Your task to perform on an android device: turn on bluetooth scan Image 0: 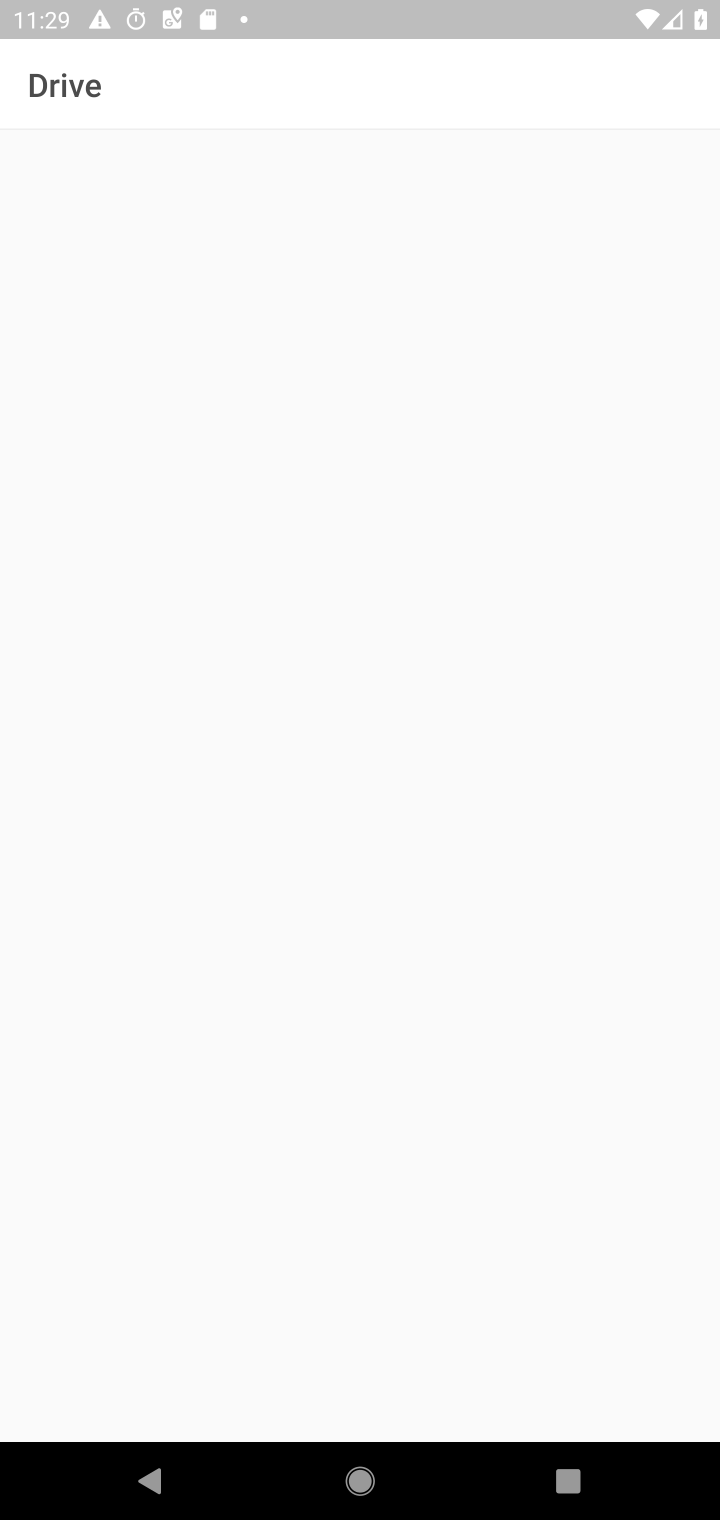
Step 0: press home button
Your task to perform on an android device: turn on bluetooth scan Image 1: 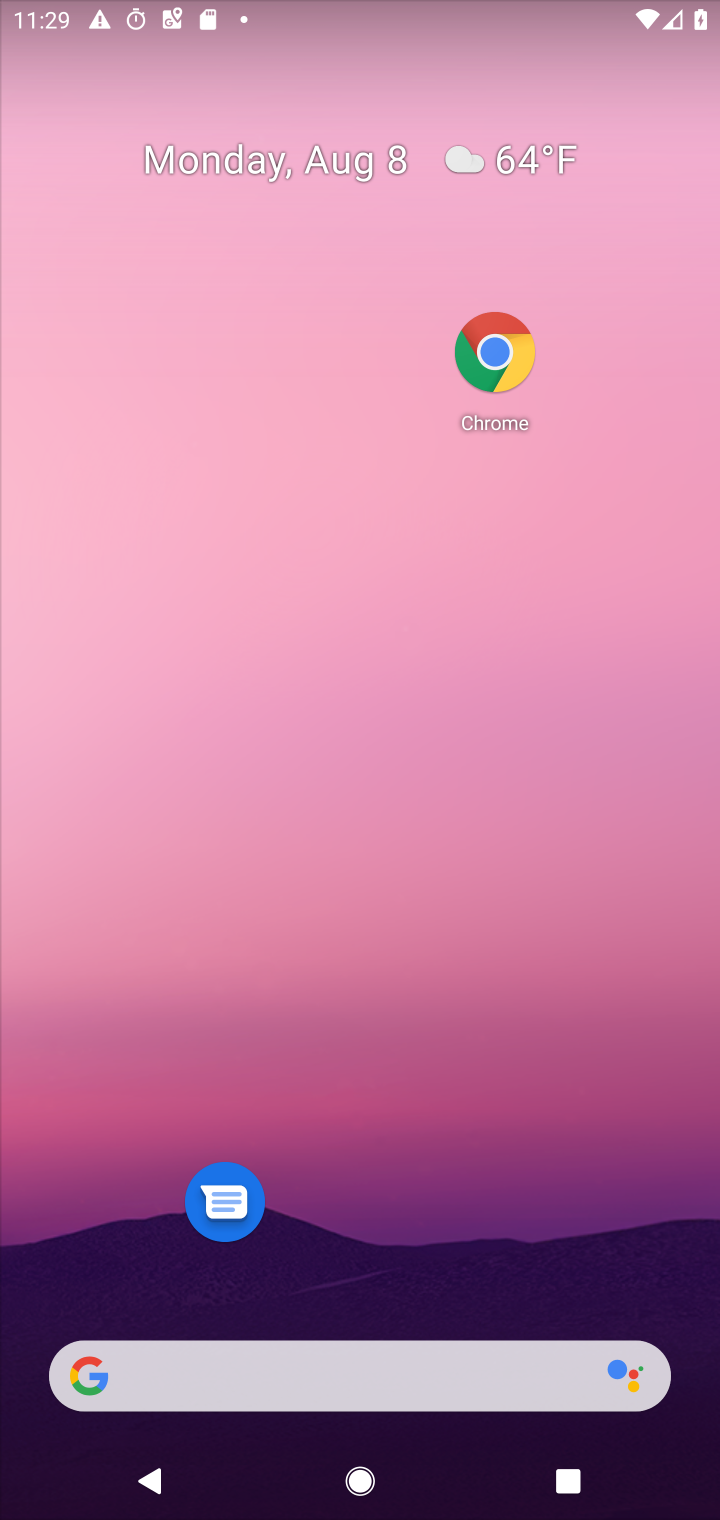
Step 1: drag from (423, 753) to (413, 392)
Your task to perform on an android device: turn on bluetooth scan Image 2: 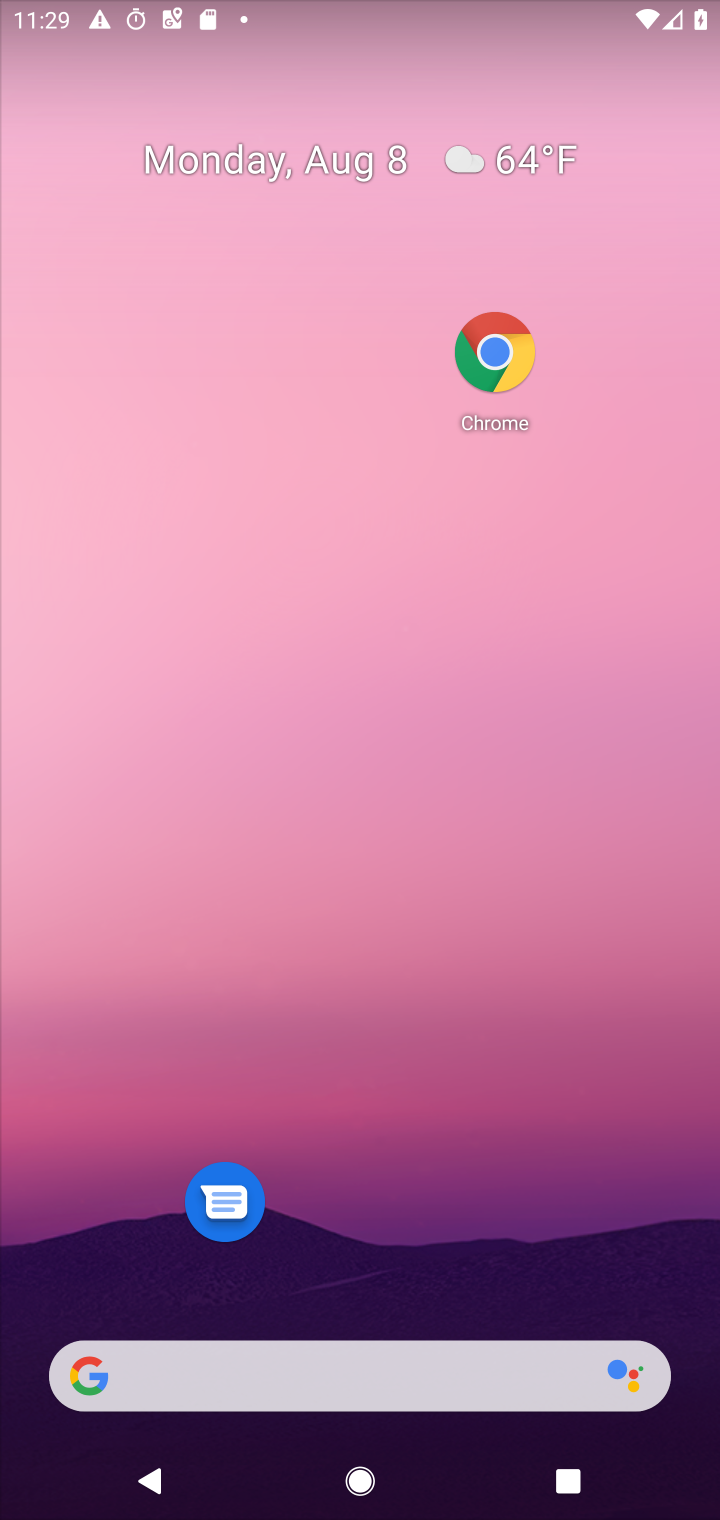
Step 2: drag from (442, 761) to (469, 295)
Your task to perform on an android device: turn on bluetooth scan Image 3: 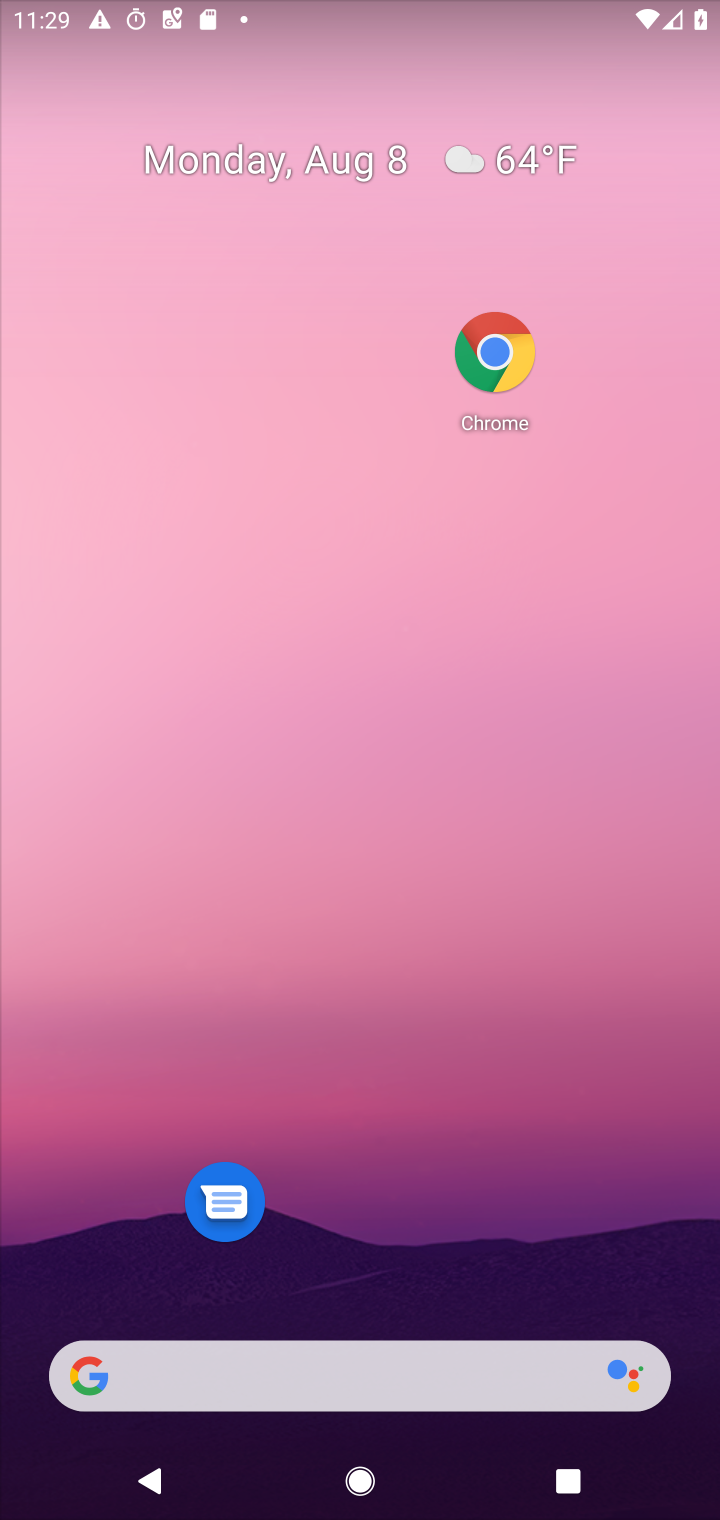
Step 3: drag from (457, 1318) to (377, 98)
Your task to perform on an android device: turn on bluetooth scan Image 4: 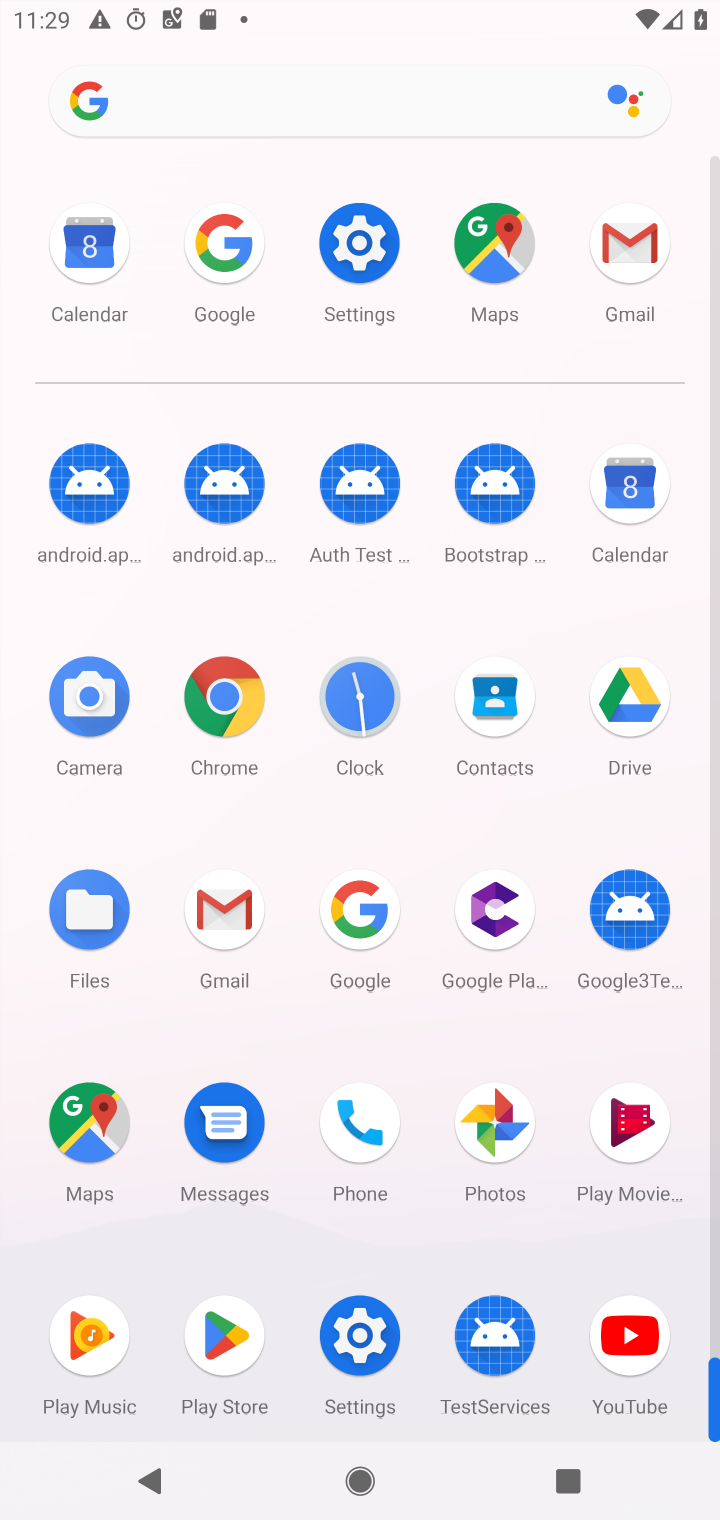
Step 4: click (358, 253)
Your task to perform on an android device: turn on bluetooth scan Image 5: 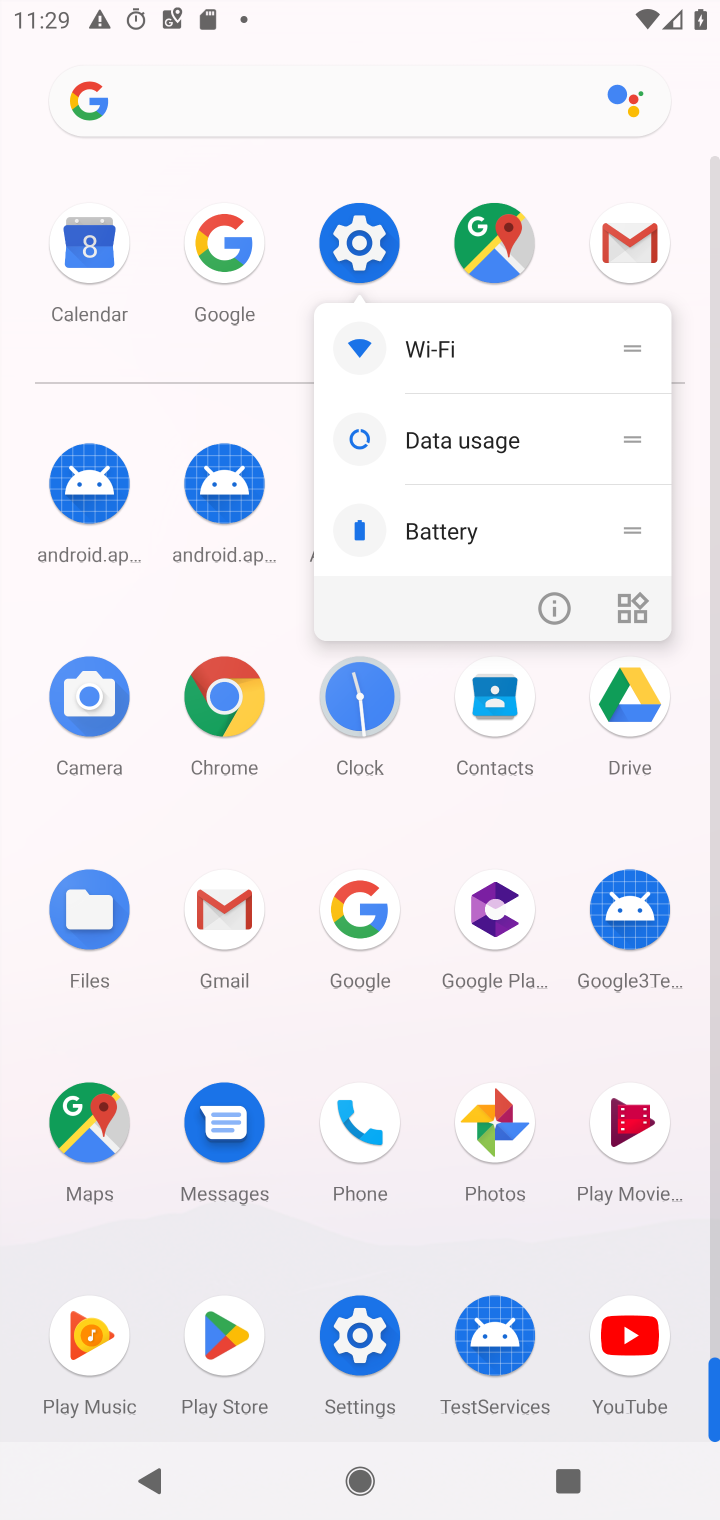
Step 5: click (349, 253)
Your task to perform on an android device: turn on bluetooth scan Image 6: 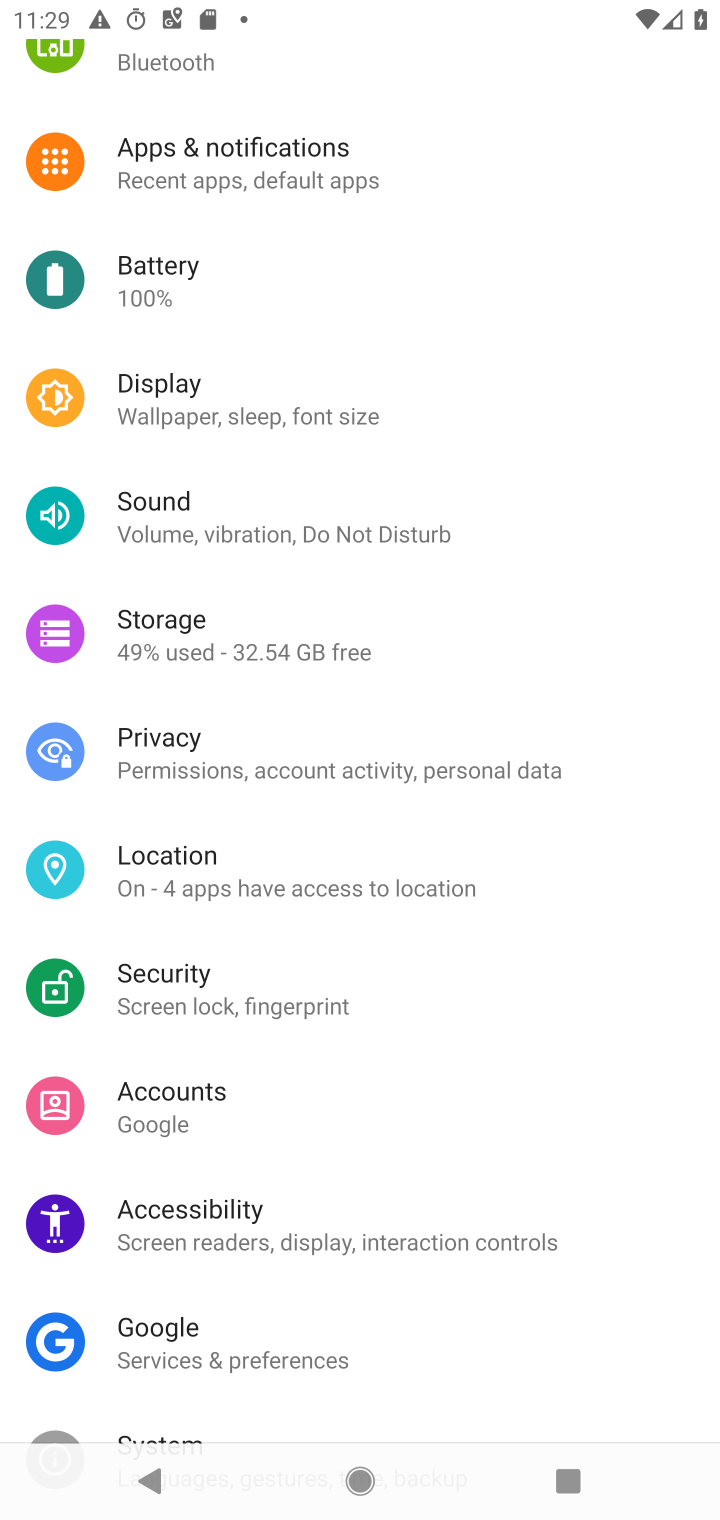
Step 6: drag from (256, 801) to (218, 1305)
Your task to perform on an android device: turn on bluetooth scan Image 7: 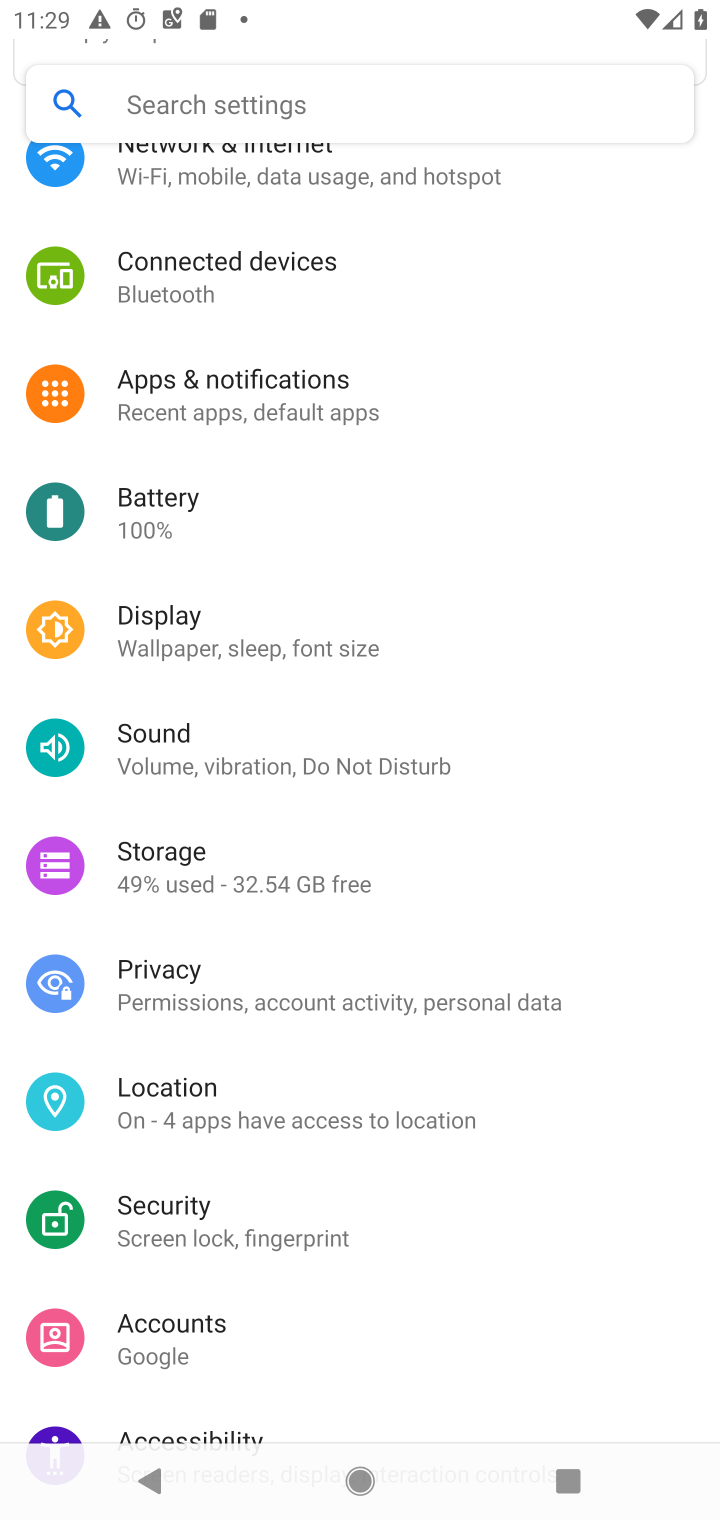
Step 7: drag from (330, 602) to (310, 1318)
Your task to perform on an android device: turn on bluetooth scan Image 8: 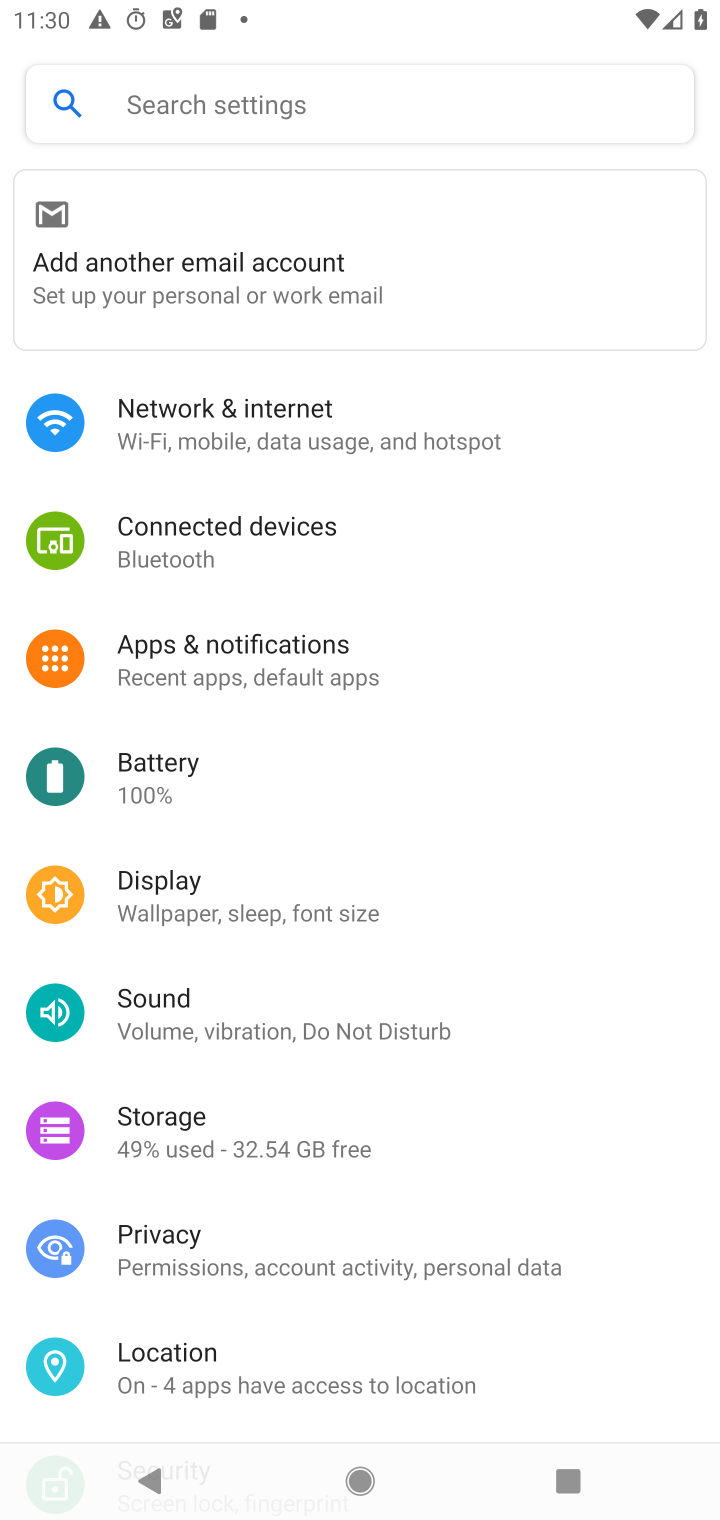
Step 8: click (299, 542)
Your task to perform on an android device: turn on bluetooth scan Image 9: 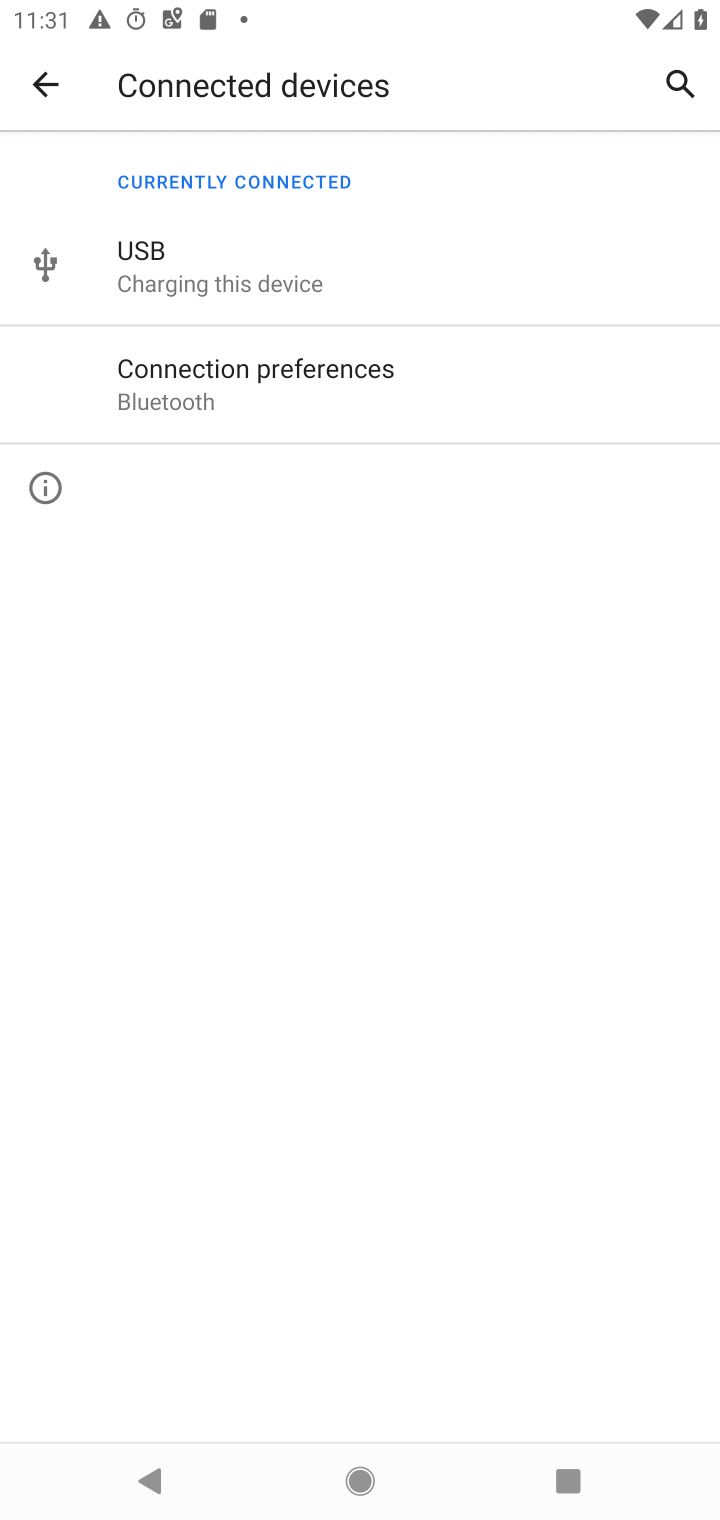
Step 9: click (261, 370)
Your task to perform on an android device: turn on bluetooth scan Image 10: 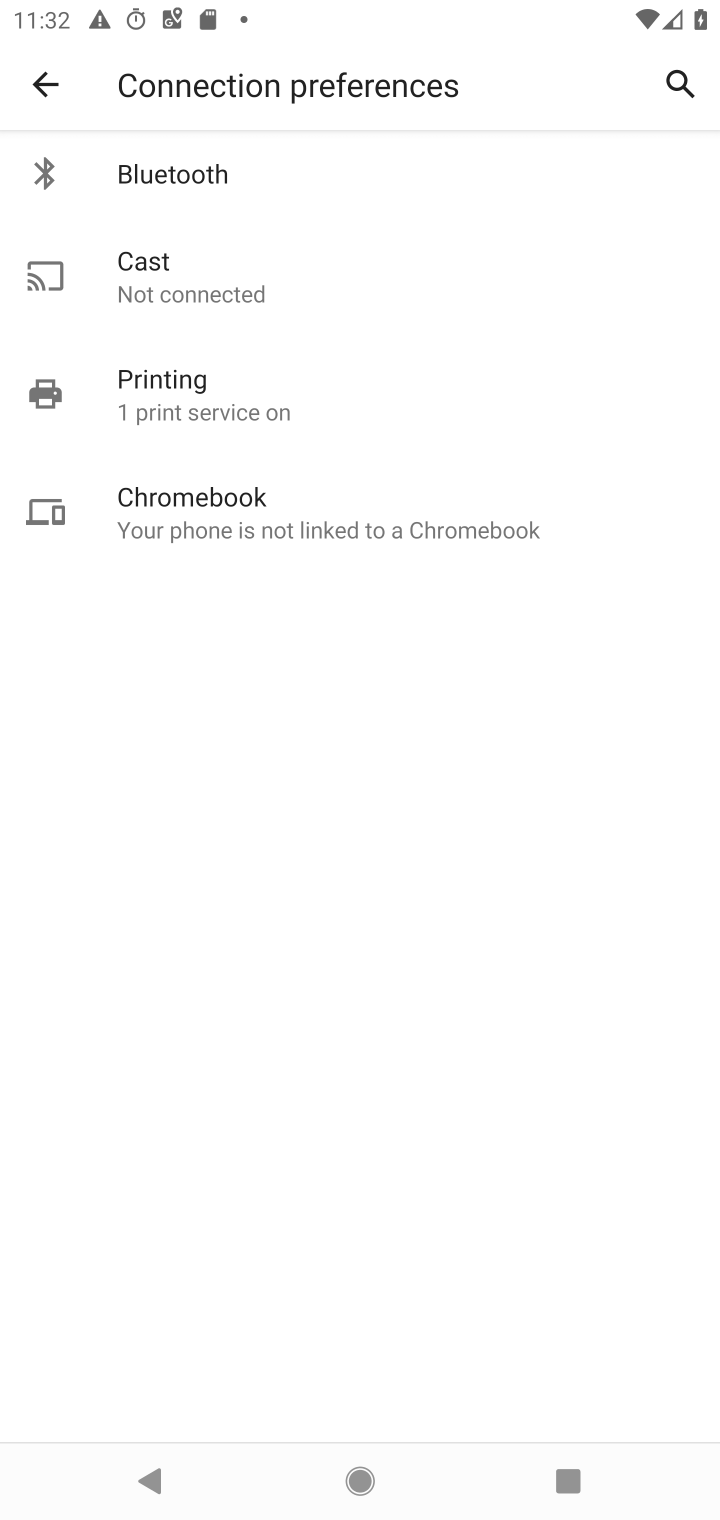
Step 10: click (196, 196)
Your task to perform on an android device: turn on bluetooth scan Image 11: 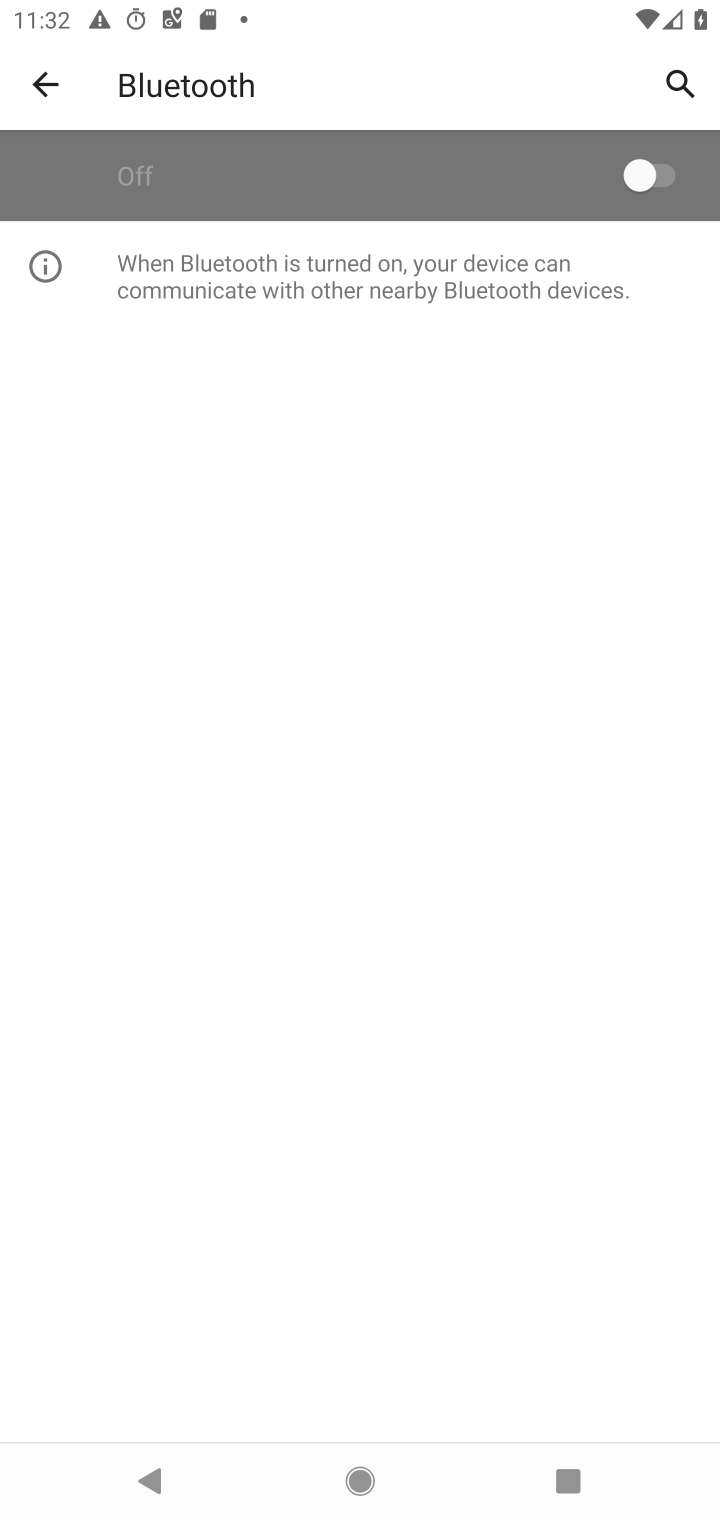
Step 11: click (439, 220)
Your task to perform on an android device: turn on bluetooth scan Image 12: 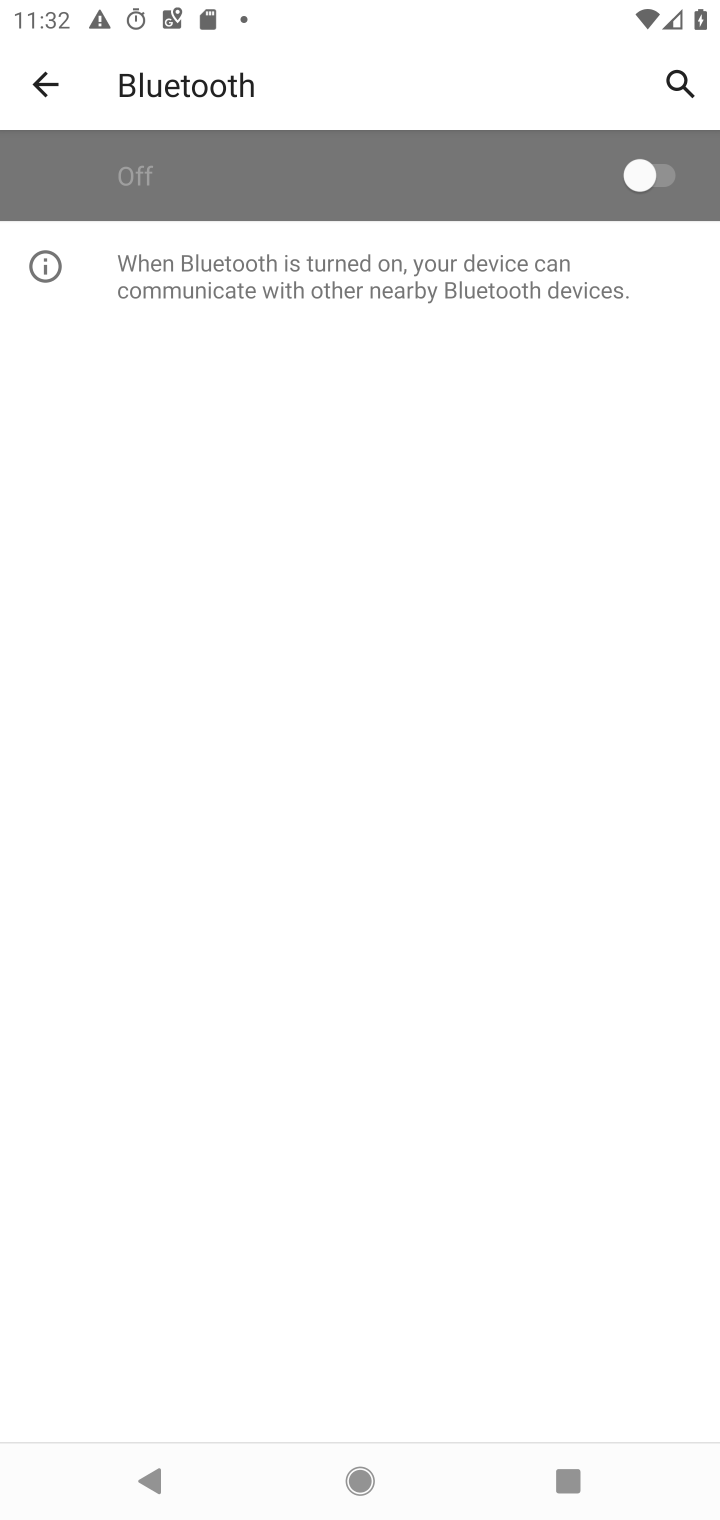
Step 12: task complete